Your task to perform on an android device: toggle pop-ups in chrome Image 0: 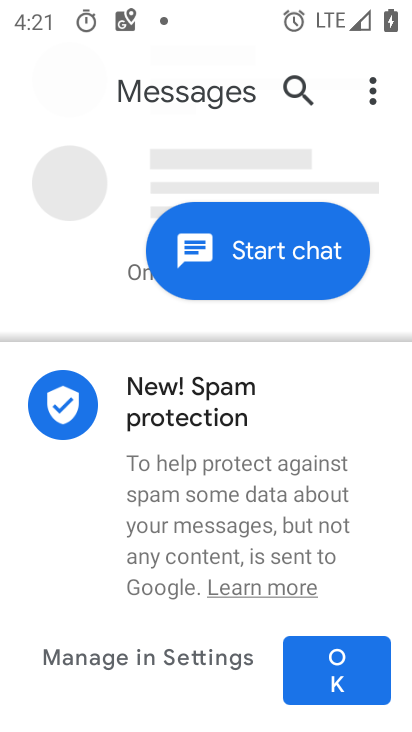
Step 0: press back button
Your task to perform on an android device: toggle pop-ups in chrome Image 1: 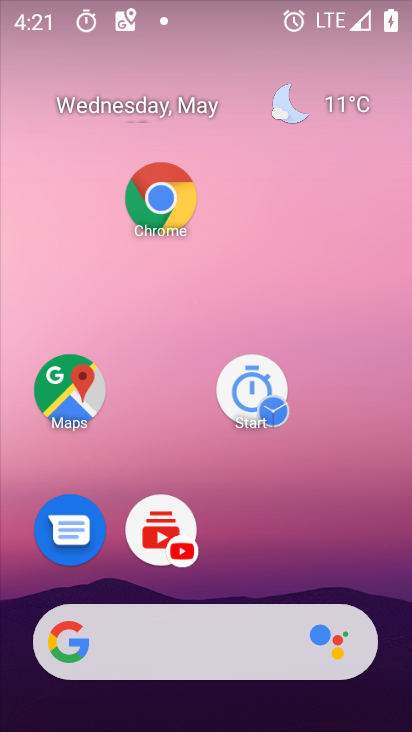
Step 1: drag from (387, 650) to (186, 88)
Your task to perform on an android device: toggle pop-ups in chrome Image 2: 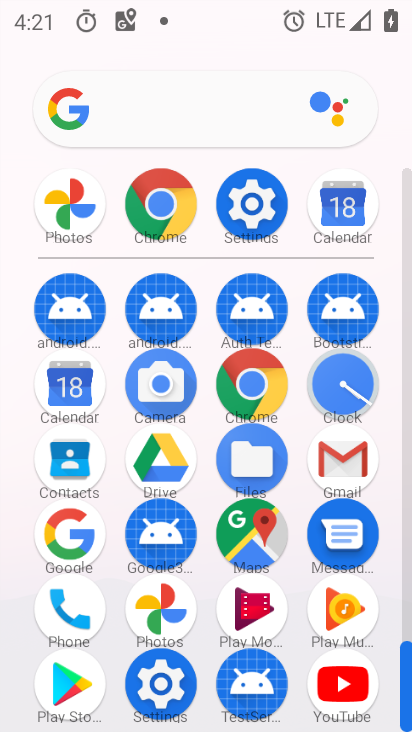
Step 2: click (157, 211)
Your task to perform on an android device: toggle pop-ups in chrome Image 3: 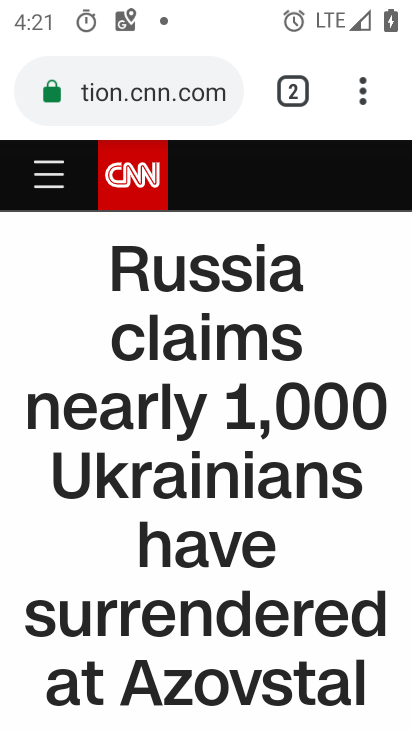
Step 3: drag from (360, 94) to (87, 561)
Your task to perform on an android device: toggle pop-ups in chrome Image 4: 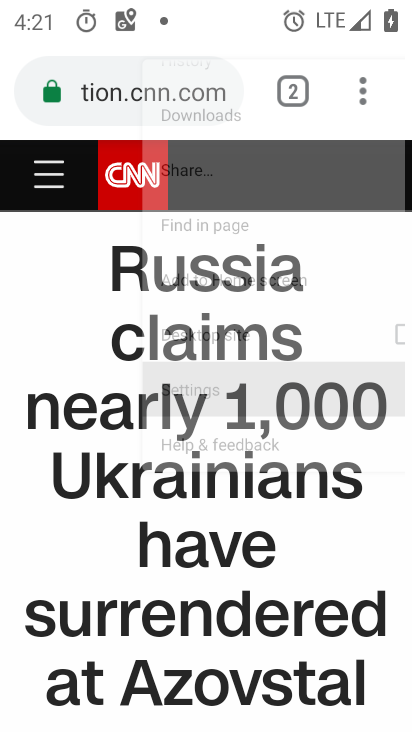
Step 4: click (87, 561)
Your task to perform on an android device: toggle pop-ups in chrome Image 5: 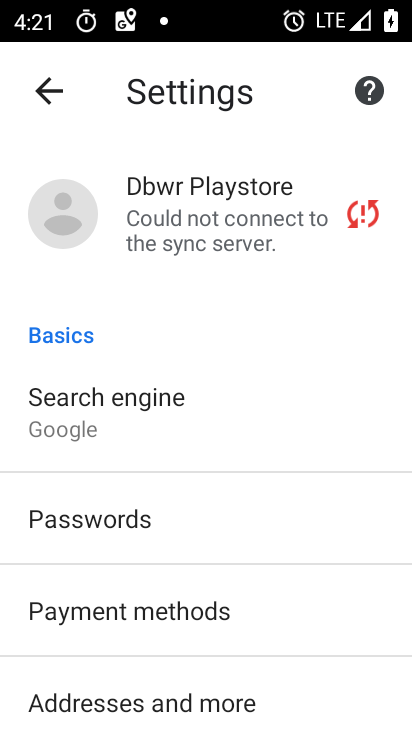
Step 5: drag from (148, 505) to (164, 231)
Your task to perform on an android device: toggle pop-ups in chrome Image 6: 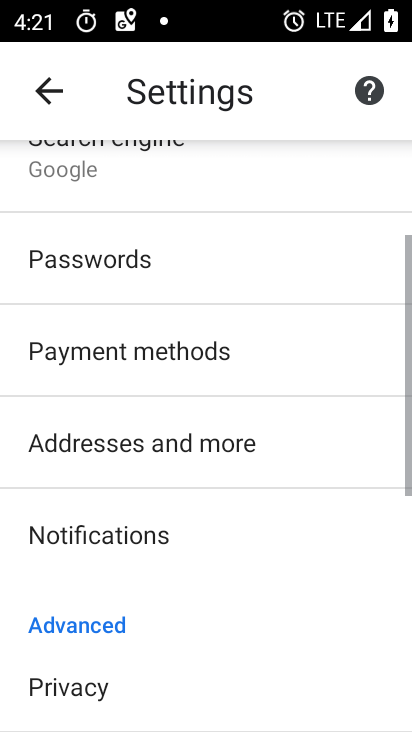
Step 6: drag from (173, 550) to (135, 262)
Your task to perform on an android device: toggle pop-ups in chrome Image 7: 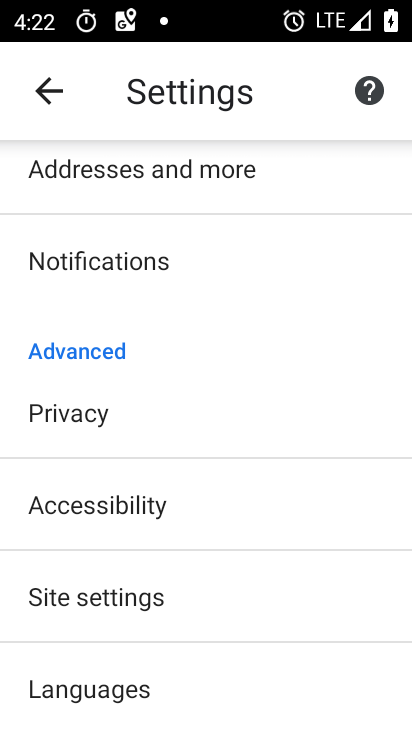
Step 7: click (83, 597)
Your task to perform on an android device: toggle pop-ups in chrome Image 8: 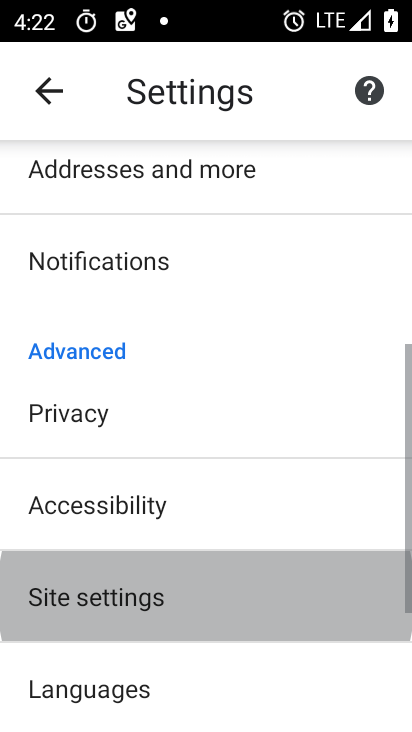
Step 8: click (83, 597)
Your task to perform on an android device: toggle pop-ups in chrome Image 9: 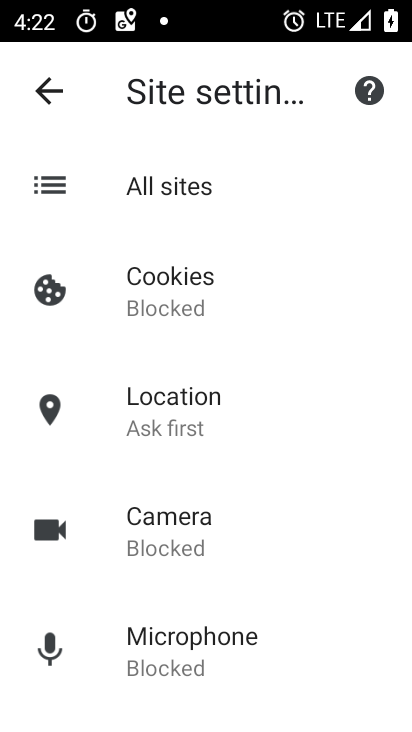
Step 9: drag from (162, 574) to (160, 290)
Your task to perform on an android device: toggle pop-ups in chrome Image 10: 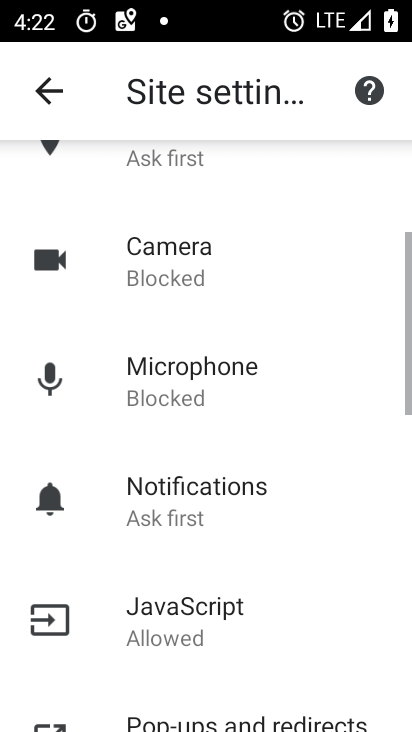
Step 10: drag from (193, 397) to (176, 307)
Your task to perform on an android device: toggle pop-ups in chrome Image 11: 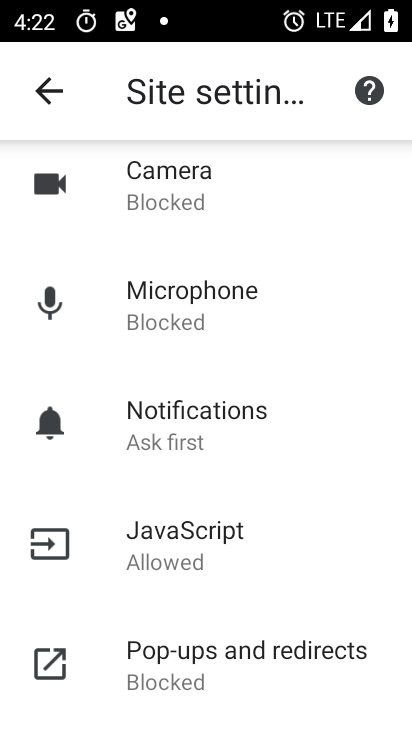
Step 11: click (192, 652)
Your task to perform on an android device: toggle pop-ups in chrome Image 12: 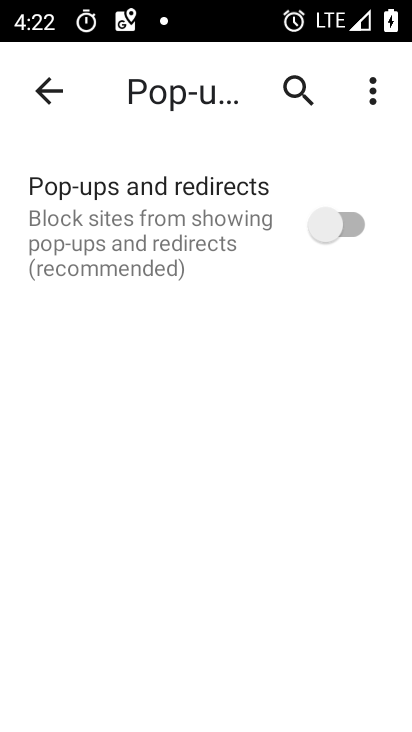
Step 12: click (312, 223)
Your task to perform on an android device: toggle pop-ups in chrome Image 13: 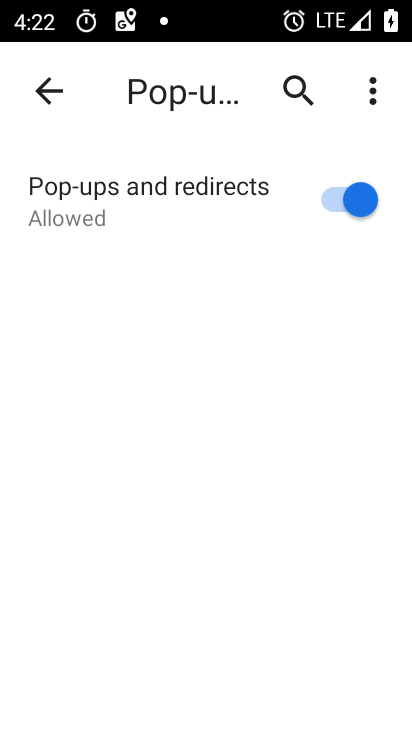
Step 13: task complete